Your task to perform on an android device: open a new tab in the chrome app Image 0: 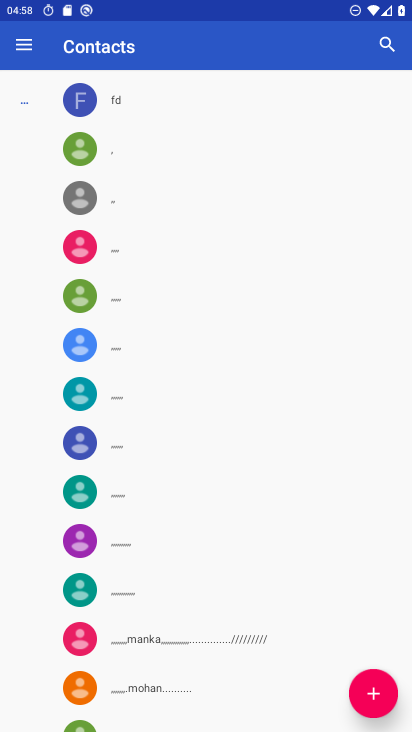
Step 0: press home button
Your task to perform on an android device: open a new tab in the chrome app Image 1: 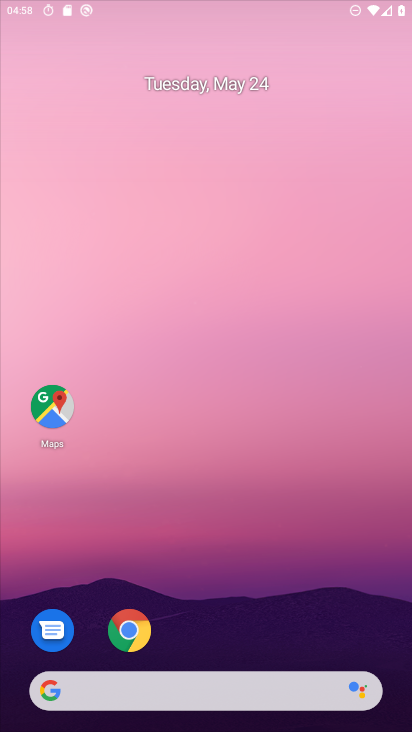
Step 1: click (128, 621)
Your task to perform on an android device: open a new tab in the chrome app Image 2: 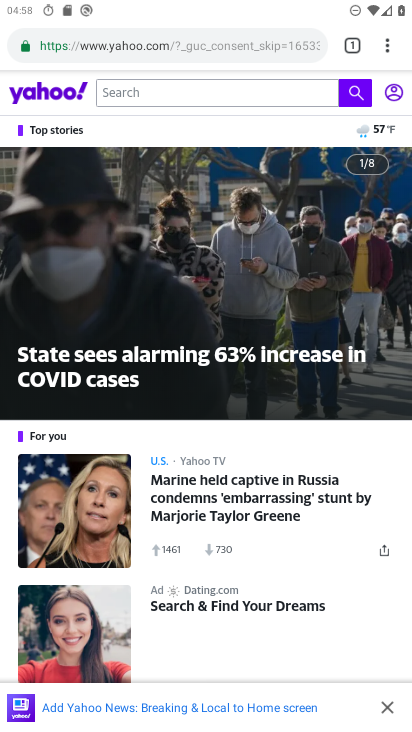
Step 2: click (351, 43)
Your task to perform on an android device: open a new tab in the chrome app Image 3: 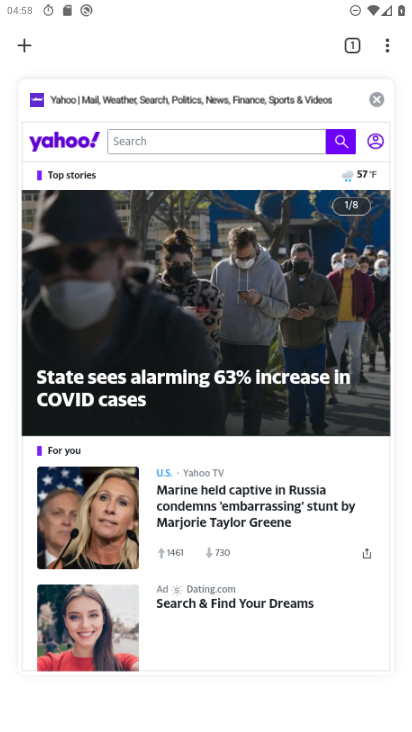
Step 3: click (29, 44)
Your task to perform on an android device: open a new tab in the chrome app Image 4: 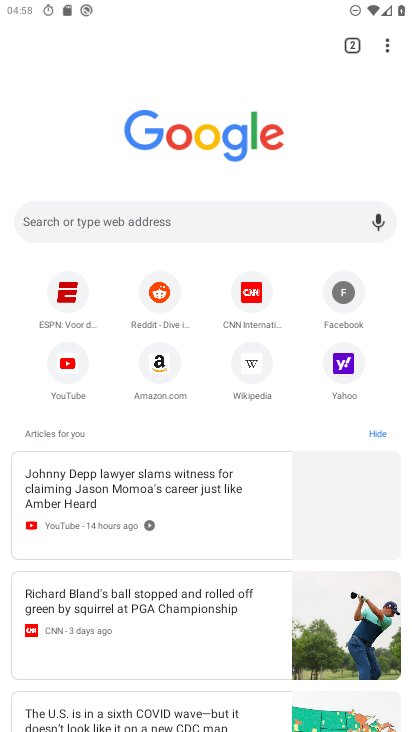
Step 4: task complete